Your task to perform on an android device: Open the Play Movies app and select the watchlist tab. Image 0: 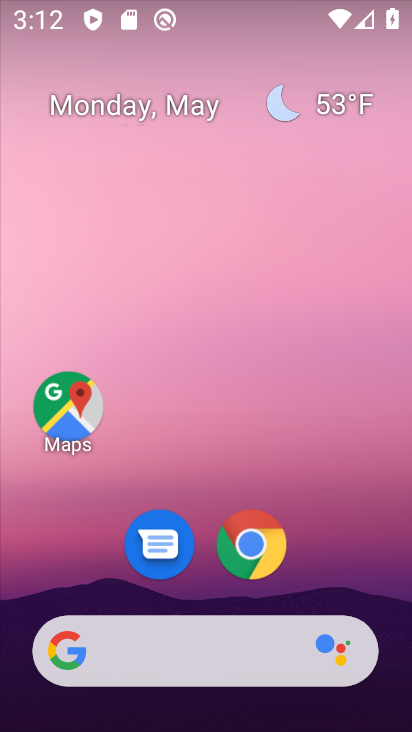
Step 0: drag from (82, 718) to (77, 7)
Your task to perform on an android device: Open the Play Movies app and select the watchlist tab. Image 1: 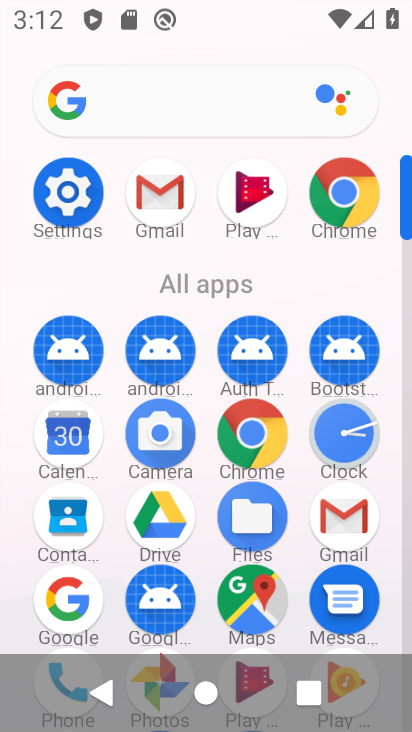
Step 1: drag from (208, 633) to (222, 229)
Your task to perform on an android device: Open the Play Movies app and select the watchlist tab. Image 2: 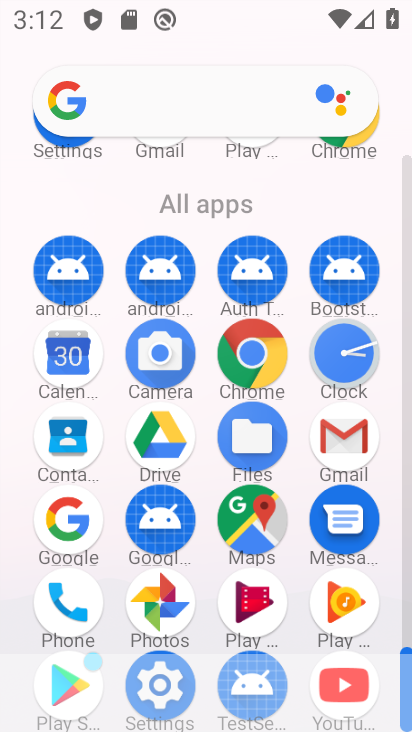
Step 2: click (252, 604)
Your task to perform on an android device: Open the Play Movies app and select the watchlist tab. Image 3: 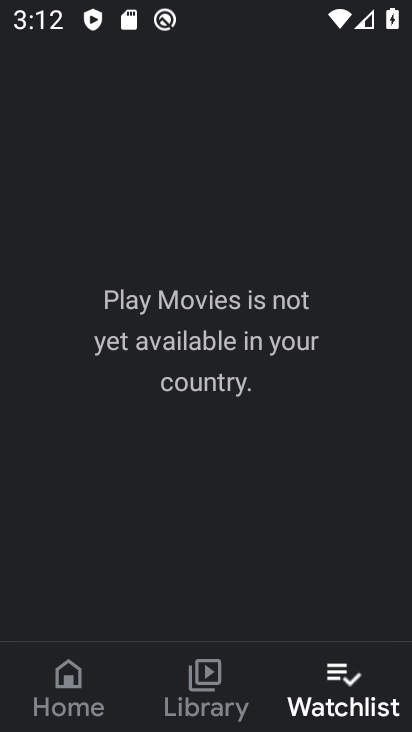
Step 3: task complete